Your task to perform on an android device: change alarm snooze length Image 0: 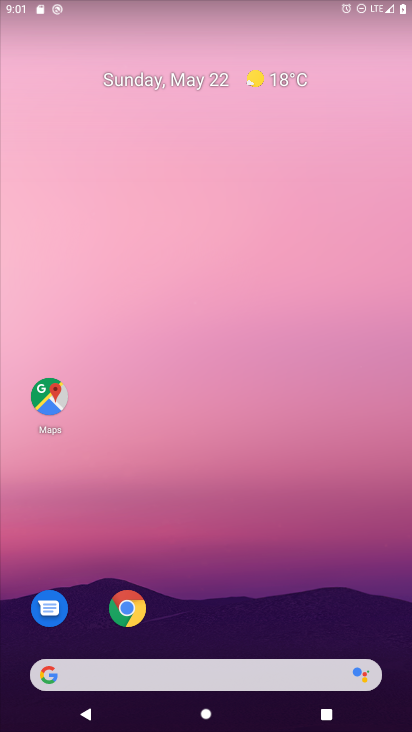
Step 0: drag from (224, 725) to (221, 143)
Your task to perform on an android device: change alarm snooze length Image 1: 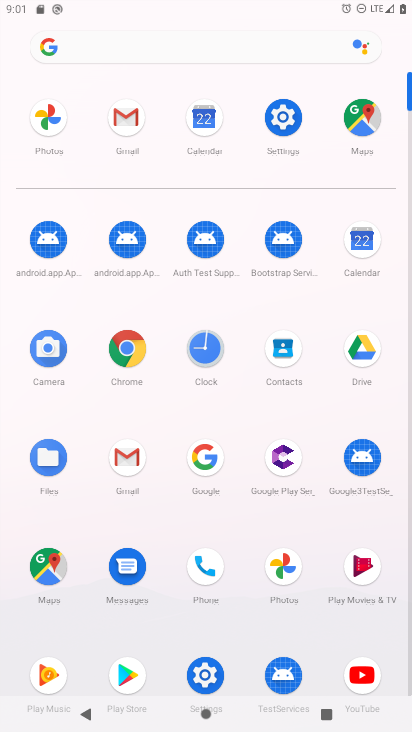
Step 1: click (206, 351)
Your task to perform on an android device: change alarm snooze length Image 2: 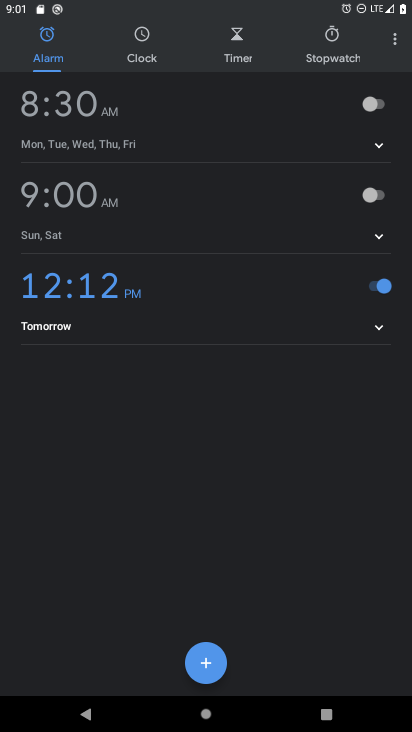
Step 2: click (398, 43)
Your task to perform on an android device: change alarm snooze length Image 3: 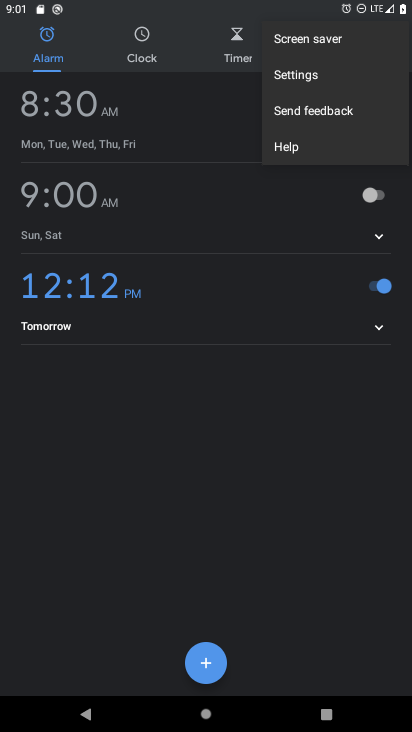
Step 3: click (314, 77)
Your task to perform on an android device: change alarm snooze length Image 4: 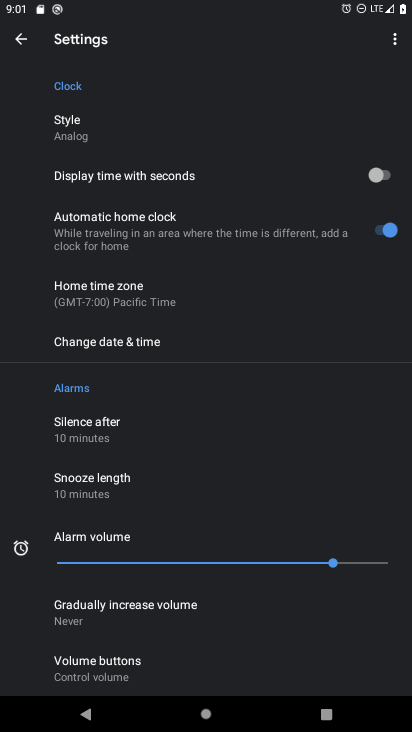
Step 4: click (100, 485)
Your task to perform on an android device: change alarm snooze length Image 5: 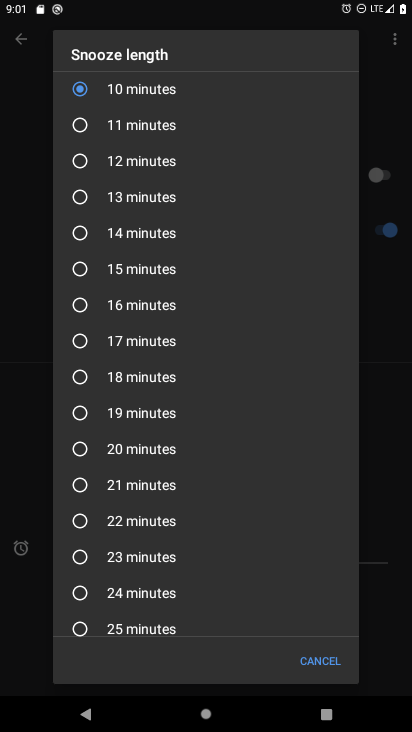
Step 5: click (76, 480)
Your task to perform on an android device: change alarm snooze length Image 6: 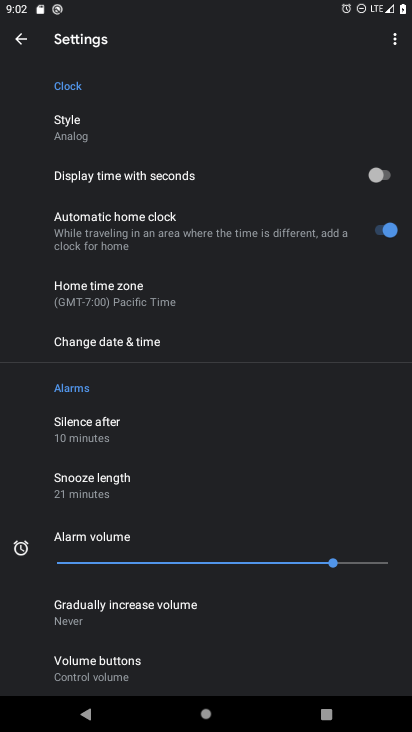
Step 6: task complete